Your task to perform on an android device: set the timer Image 0: 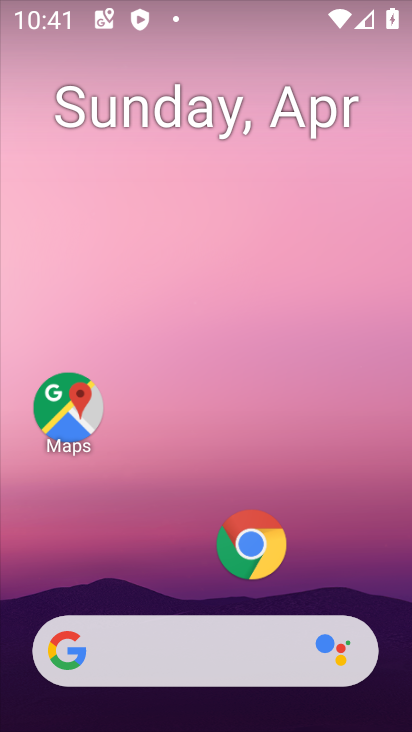
Step 0: drag from (176, 462) to (147, 155)
Your task to perform on an android device: set the timer Image 1: 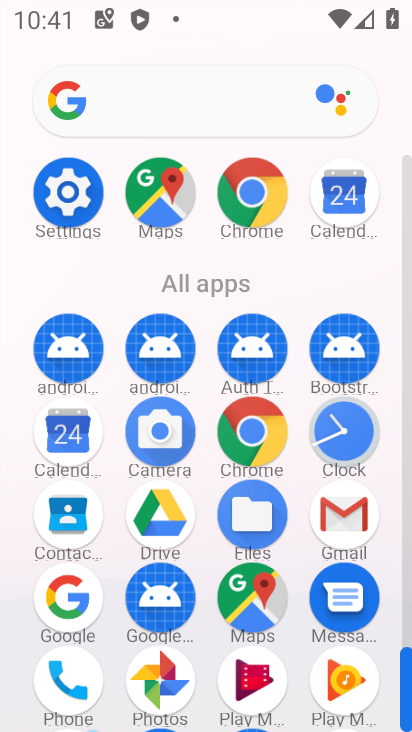
Step 1: click (345, 457)
Your task to perform on an android device: set the timer Image 2: 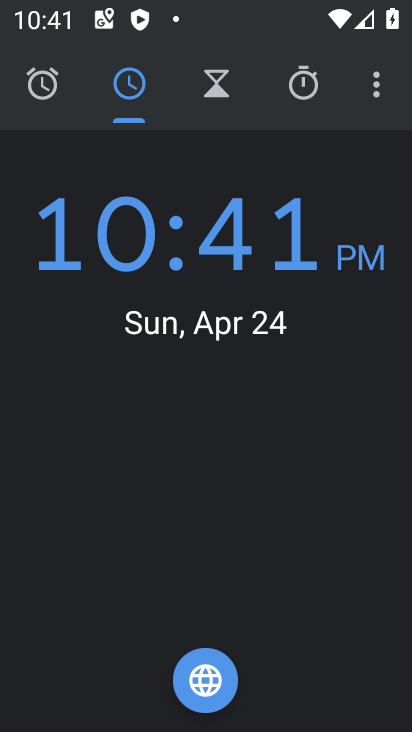
Step 2: click (220, 98)
Your task to perform on an android device: set the timer Image 3: 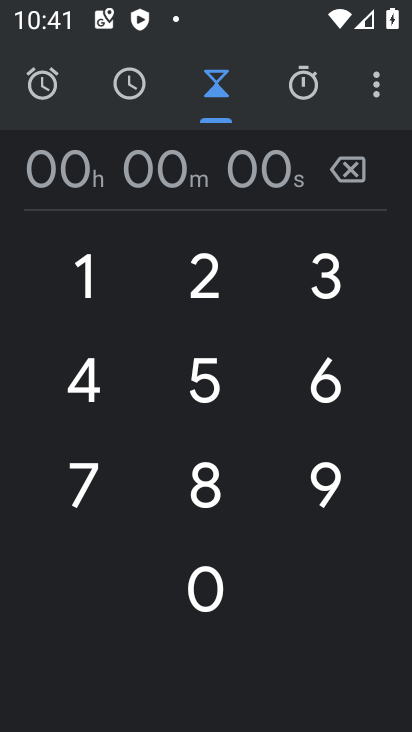
Step 3: click (256, 168)
Your task to perform on an android device: set the timer Image 4: 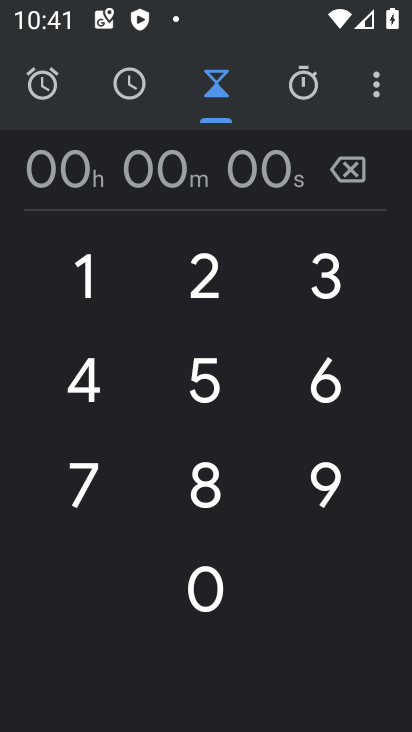
Step 4: type "34"
Your task to perform on an android device: set the timer Image 5: 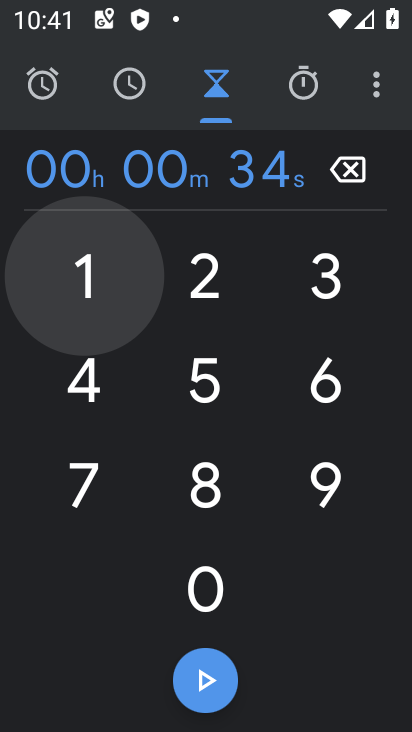
Step 5: click (199, 671)
Your task to perform on an android device: set the timer Image 6: 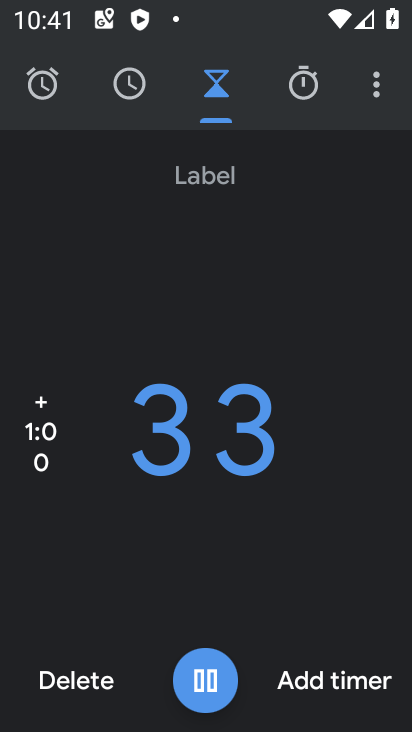
Step 6: task complete